Your task to perform on an android device: change text size in settings app Image 0: 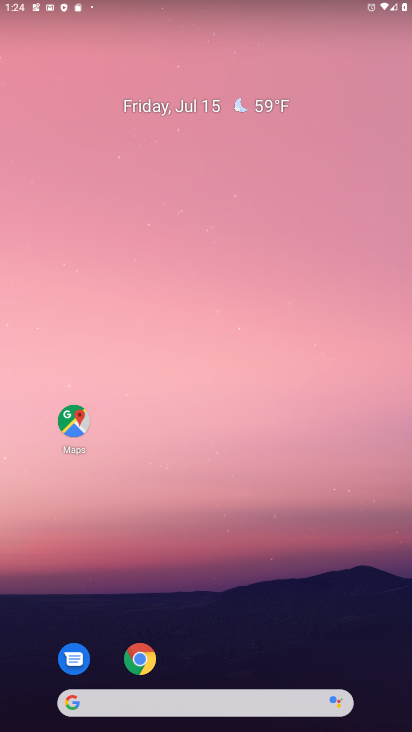
Step 0: drag from (210, 693) to (205, 213)
Your task to perform on an android device: change text size in settings app Image 1: 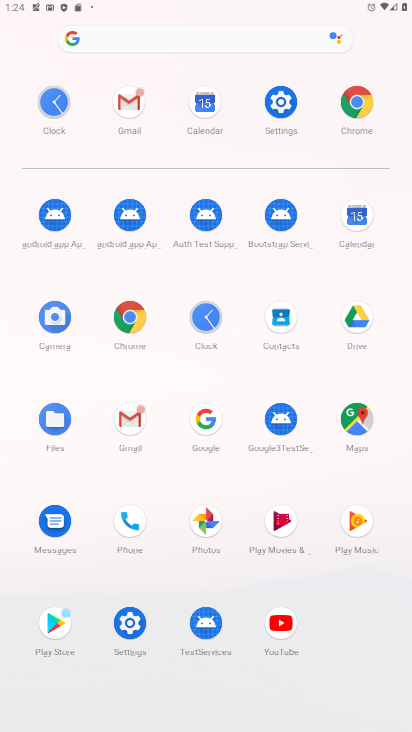
Step 1: click (280, 96)
Your task to perform on an android device: change text size in settings app Image 2: 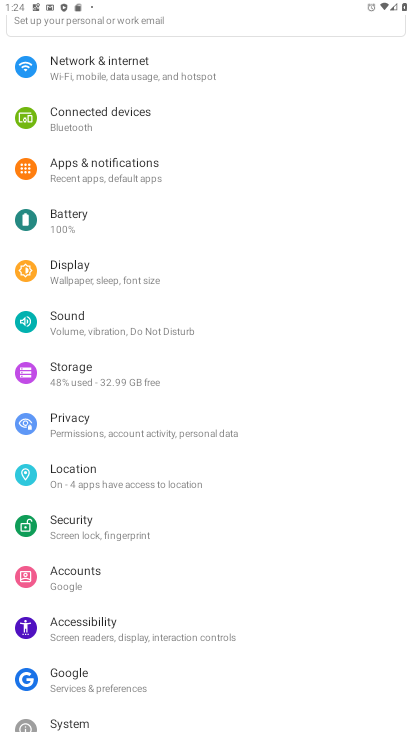
Step 2: click (109, 279)
Your task to perform on an android device: change text size in settings app Image 3: 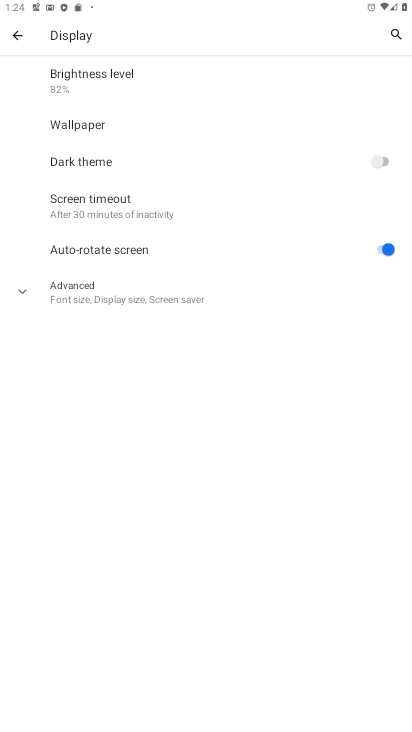
Step 3: click (111, 295)
Your task to perform on an android device: change text size in settings app Image 4: 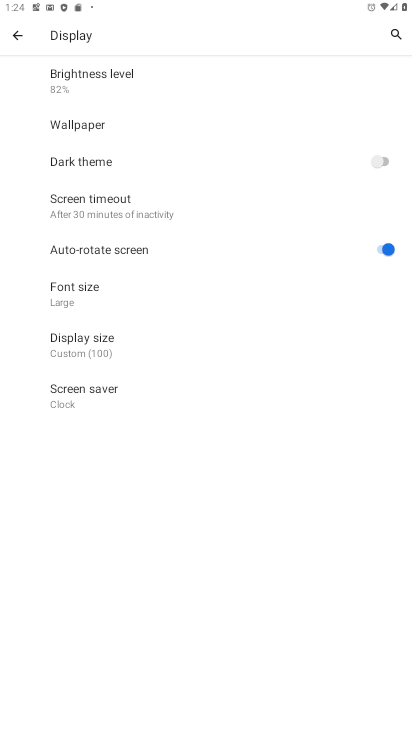
Step 4: click (74, 298)
Your task to perform on an android device: change text size in settings app Image 5: 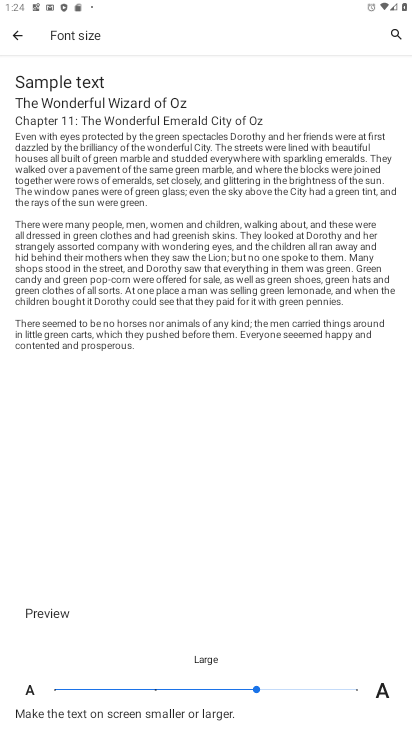
Step 5: click (355, 687)
Your task to perform on an android device: change text size in settings app Image 6: 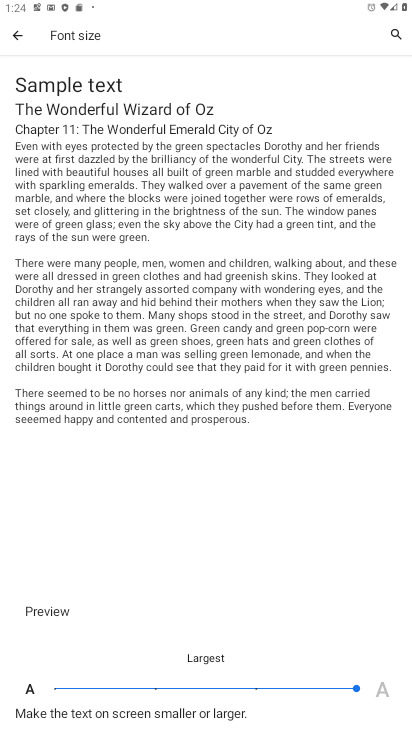
Step 6: task complete